Your task to perform on an android device: toggle javascript in the chrome app Image 0: 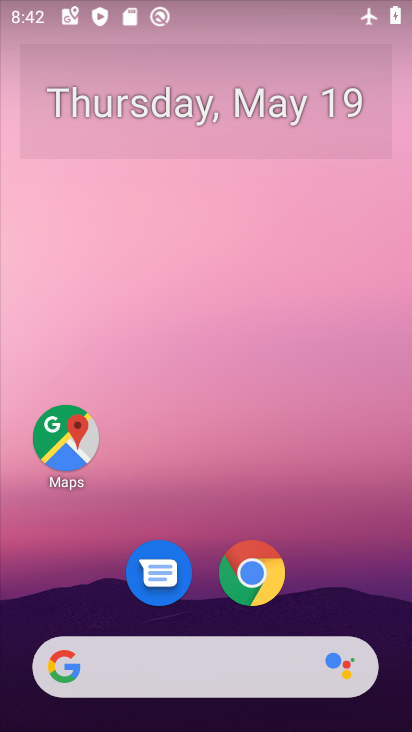
Step 0: click (245, 584)
Your task to perform on an android device: toggle javascript in the chrome app Image 1: 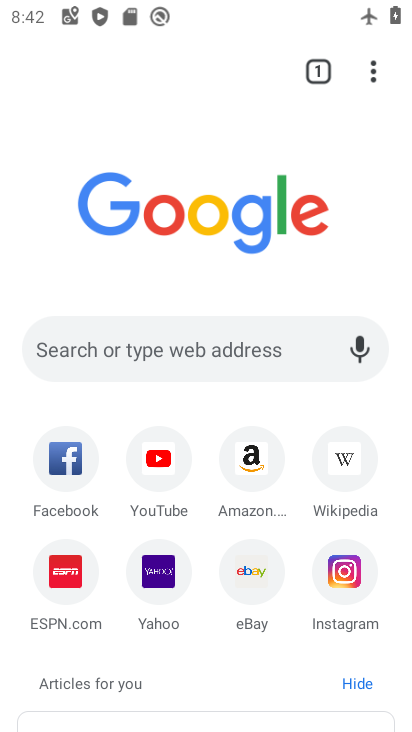
Step 1: click (376, 69)
Your task to perform on an android device: toggle javascript in the chrome app Image 2: 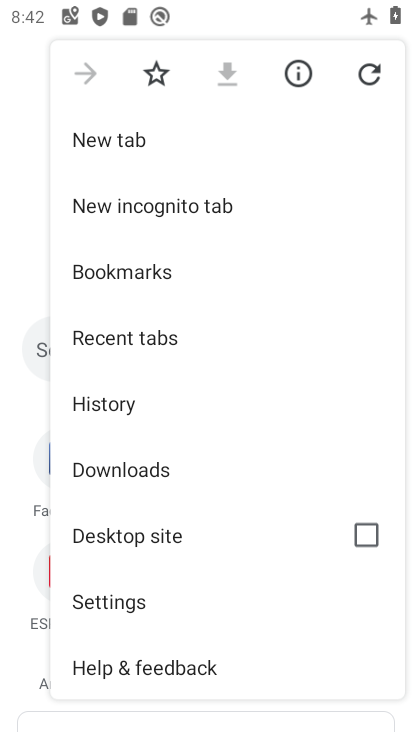
Step 2: click (137, 602)
Your task to perform on an android device: toggle javascript in the chrome app Image 3: 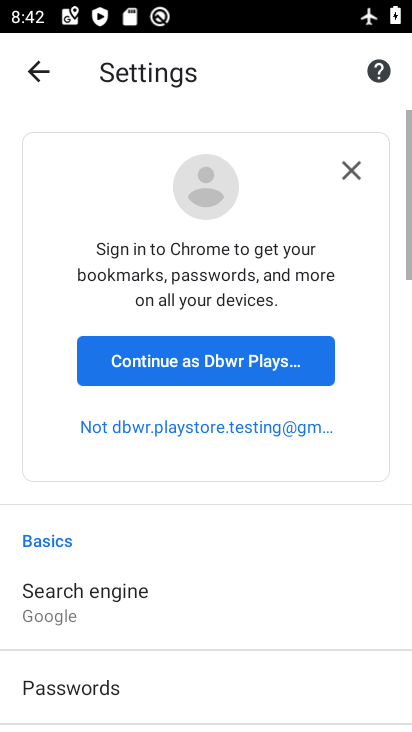
Step 3: drag from (185, 600) to (192, 100)
Your task to perform on an android device: toggle javascript in the chrome app Image 4: 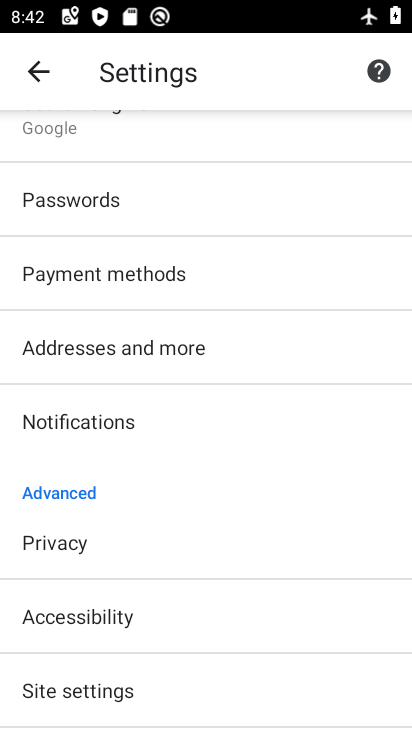
Step 4: drag from (210, 561) to (226, 188)
Your task to perform on an android device: toggle javascript in the chrome app Image 5: 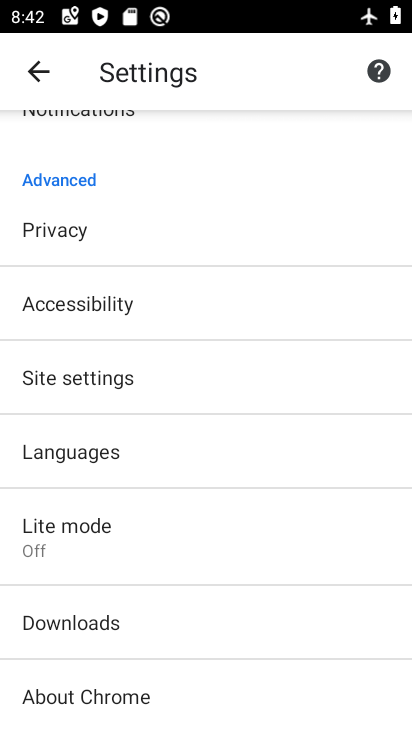
Step 5: click (71, 379)
Your task to perform on an android device: toggle javascript in the chrome app Image 6: 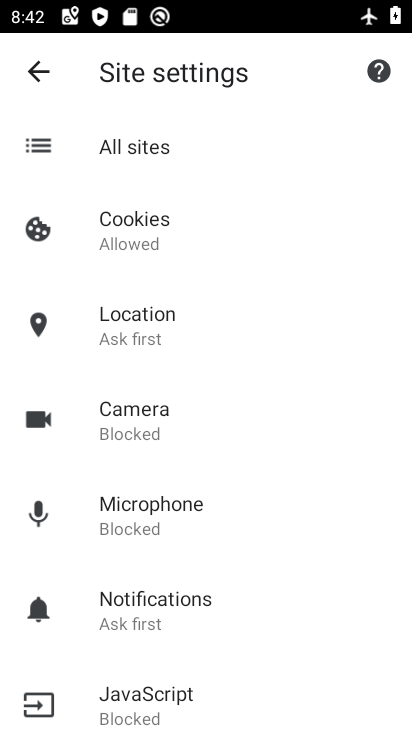
Step 6: click (149, 698)
Your task to perform on an android device: toggle javascript in the chrome app Image 7: 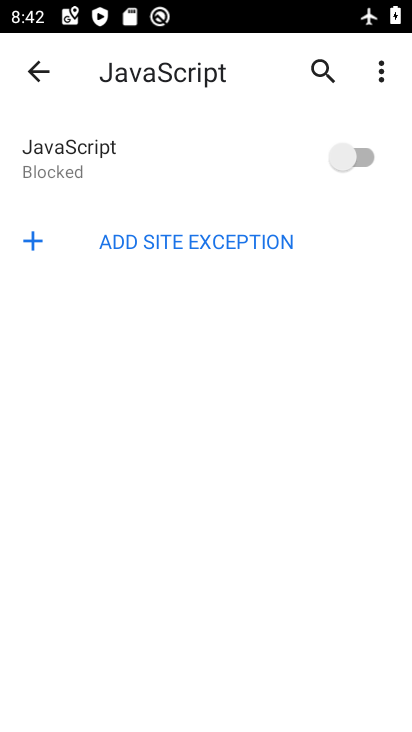
Step 7: click (357, 154)
Your task to perform on an android device: toggle javascript in the chrome app Image 8: 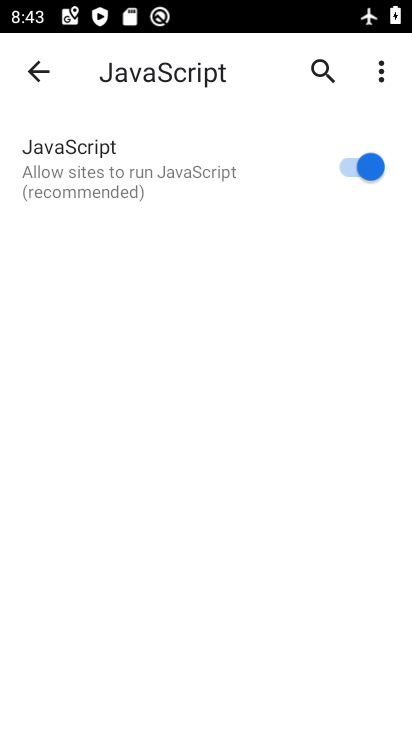
Step 8: task complete